Your task to perform on an android device: Go to Google maps Image 0: 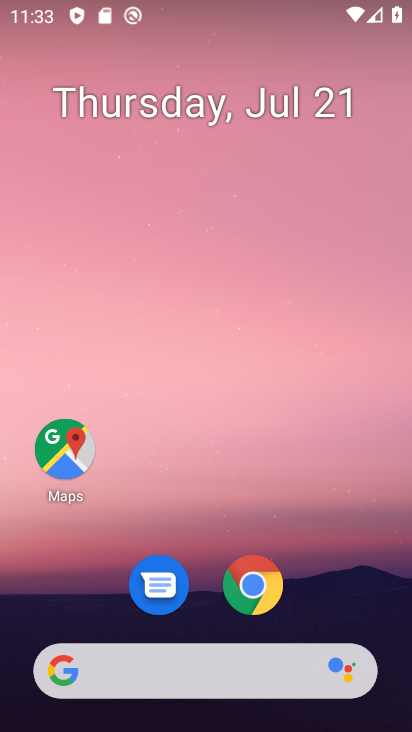
Step 0: click (258, 586)
Your task to perform on an android device: Go to Google maps Image 1: 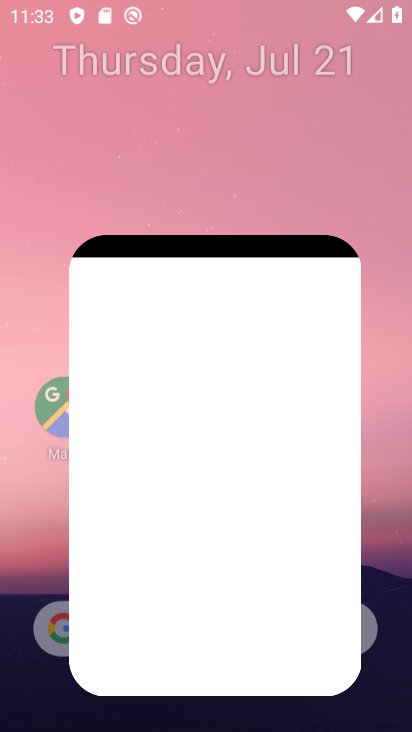
Step 1: click (63, 448)
Your task to perform on an android device: Go to Google maps Image 2: 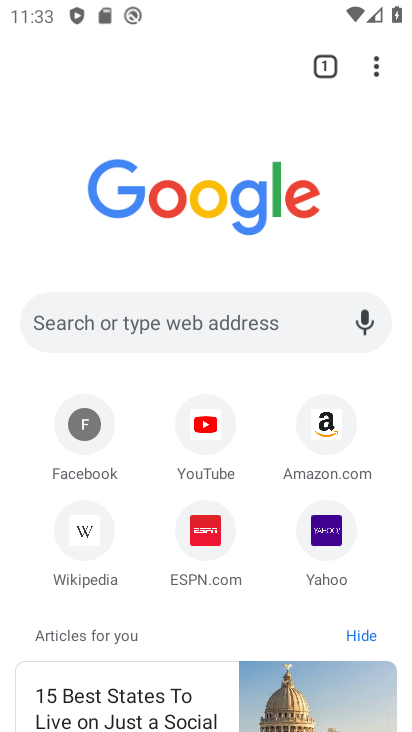
Step 2: press back button
Your task to perform on an android device: Go to Google maps Image 3: 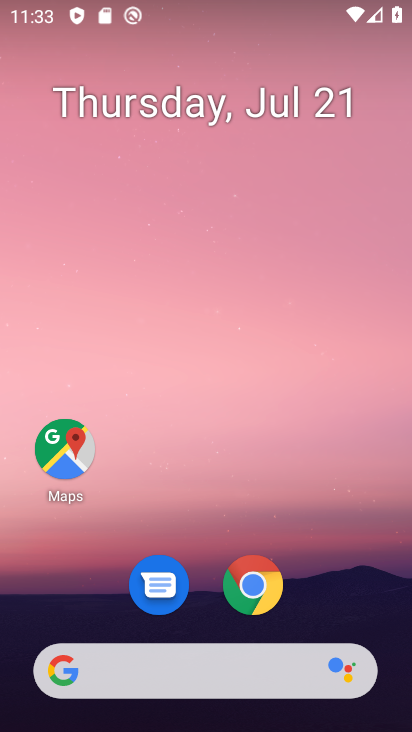
Step 3: click (64, 444)
Your task to perform on an android device: Go to Google maps Image 4: 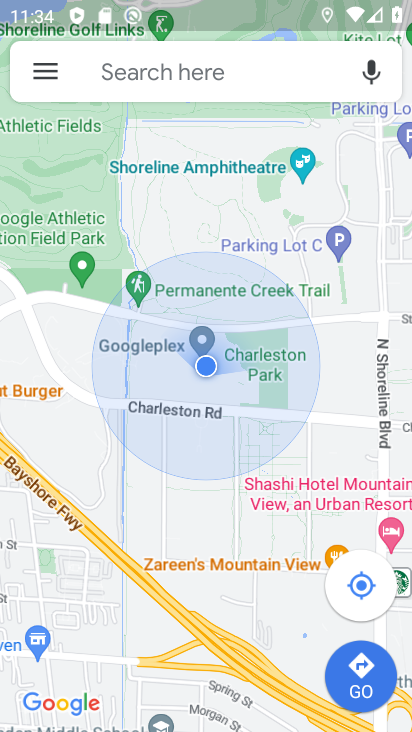
Step 4: task complete